Your task to perform on an android device: turn on improve location accuracy Image 0: 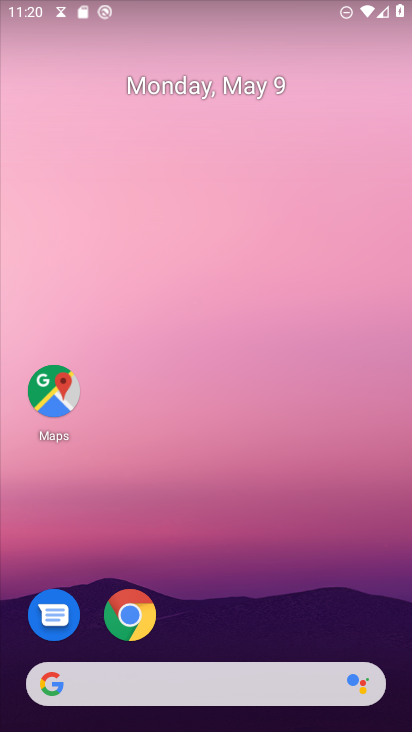
Step 0: drag from (217, 729) to (220, 29)
Your task to perform on an android device: turn on improve location accuracy Image 1: 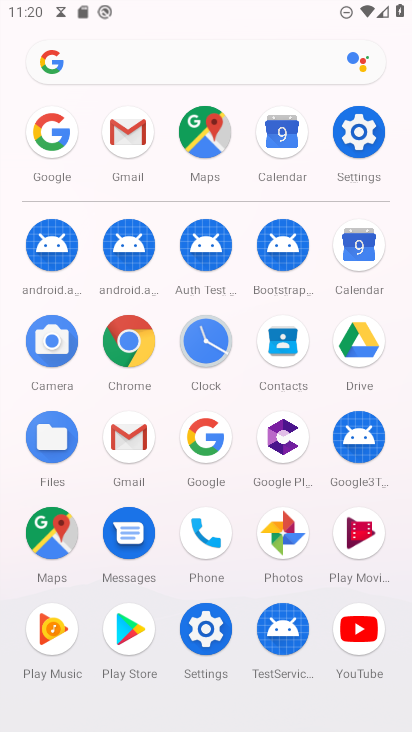
Step 1: click (352, 135)
Your task to perform on an android device: turn on improve location accuracy Image 2: 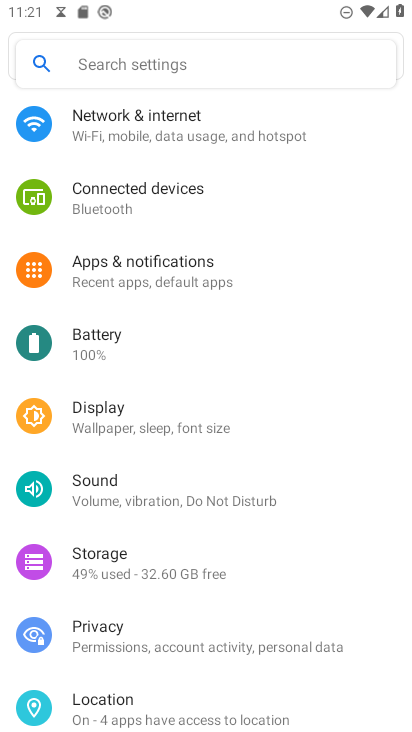
Step 2: click (118, 699)
Your task to perform on an android device: turn on improve location accuracy Image 3: 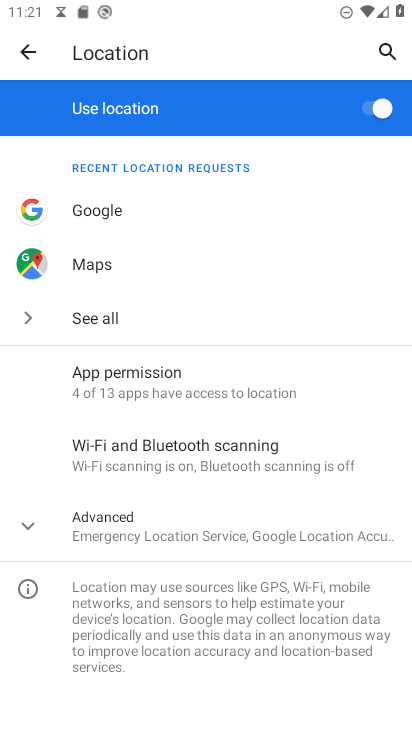
Step 3: click (156, 530)
Your task to perform on an android device: turn on improve location accuracy Image 4: 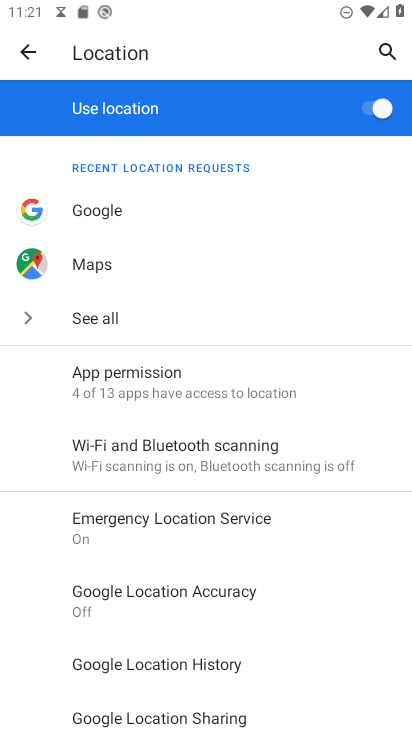
Step 4: click (154, 592)
Your task to perform on an android device: turn on improve location accuracy Image 5: 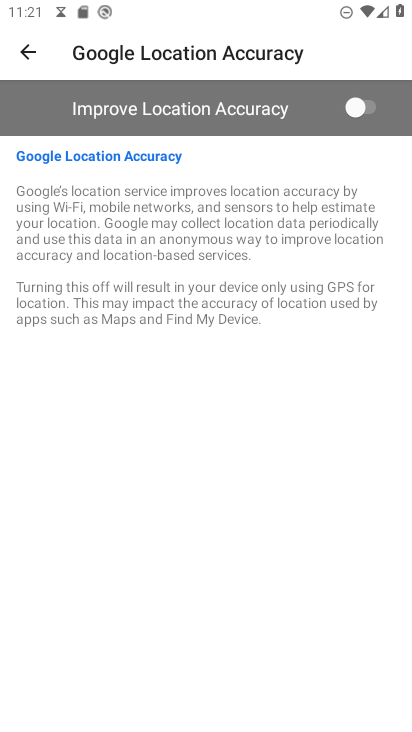
Step 5: click (370, 104)
Your task to perform on an android device: turn on improve location accuracy Image 6: 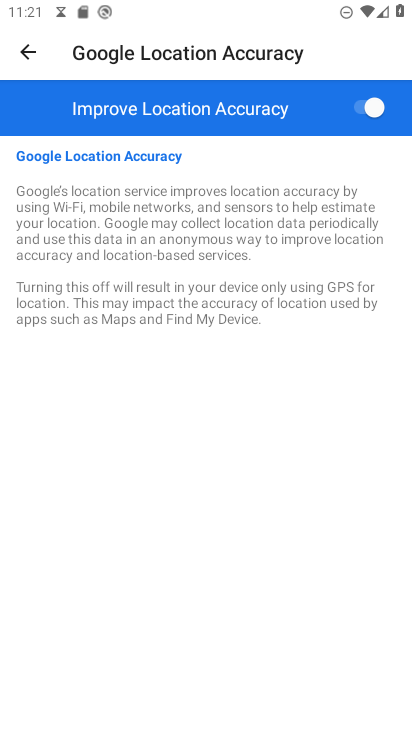
Step 6: task complete